Your task to perform on an android device: Google the capital of Mexico Image 0: 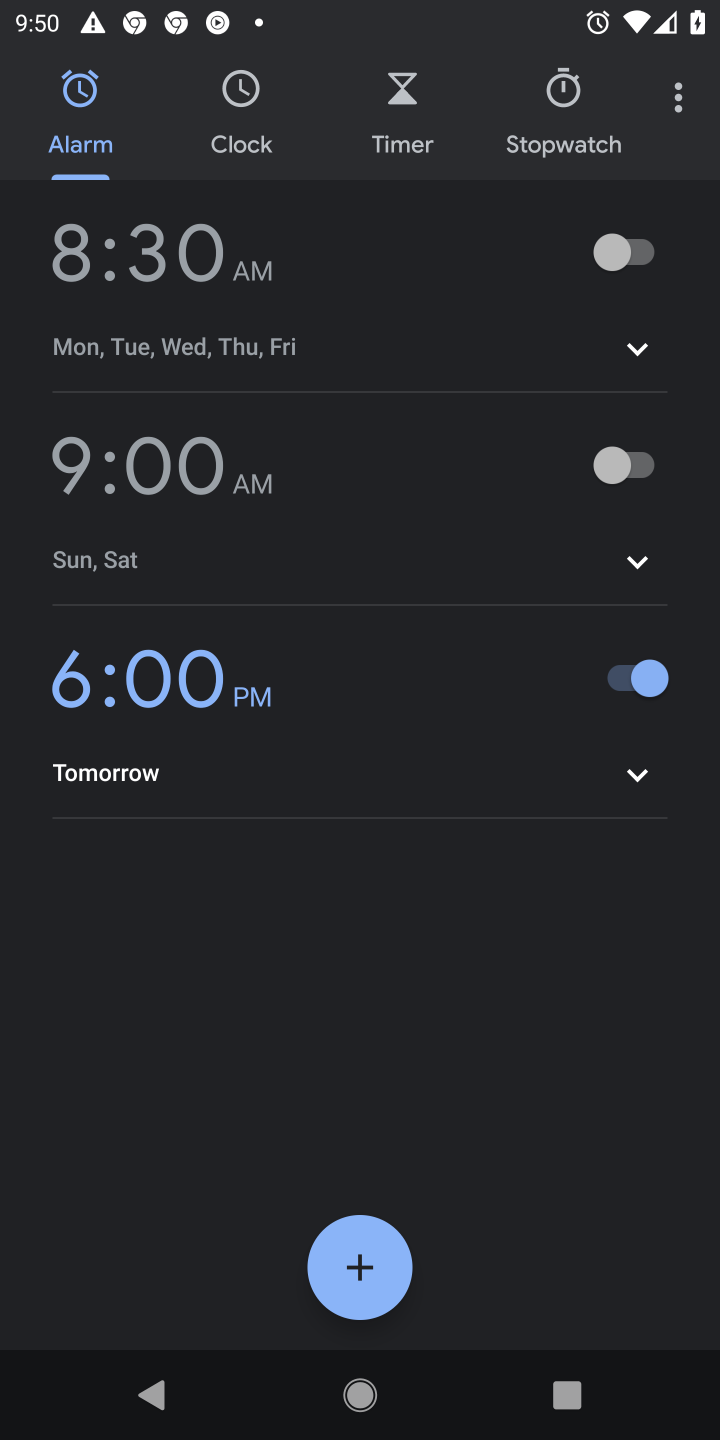
Step 0: press home button
Your task to perform on an android device: Google the capital of Mexico Image 1: 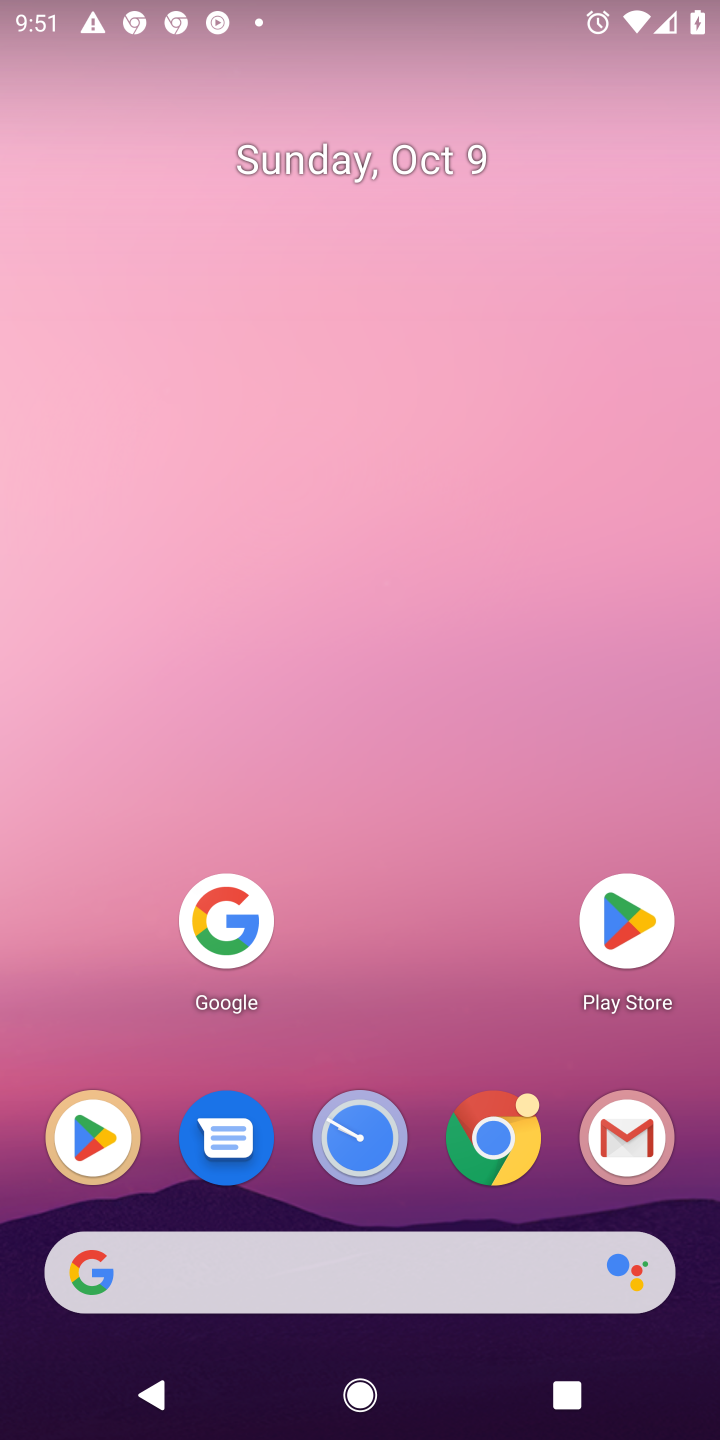
Step 1: click (231, 910)
Your task to perform on an android device: Google the capital of Mexico Image 2: 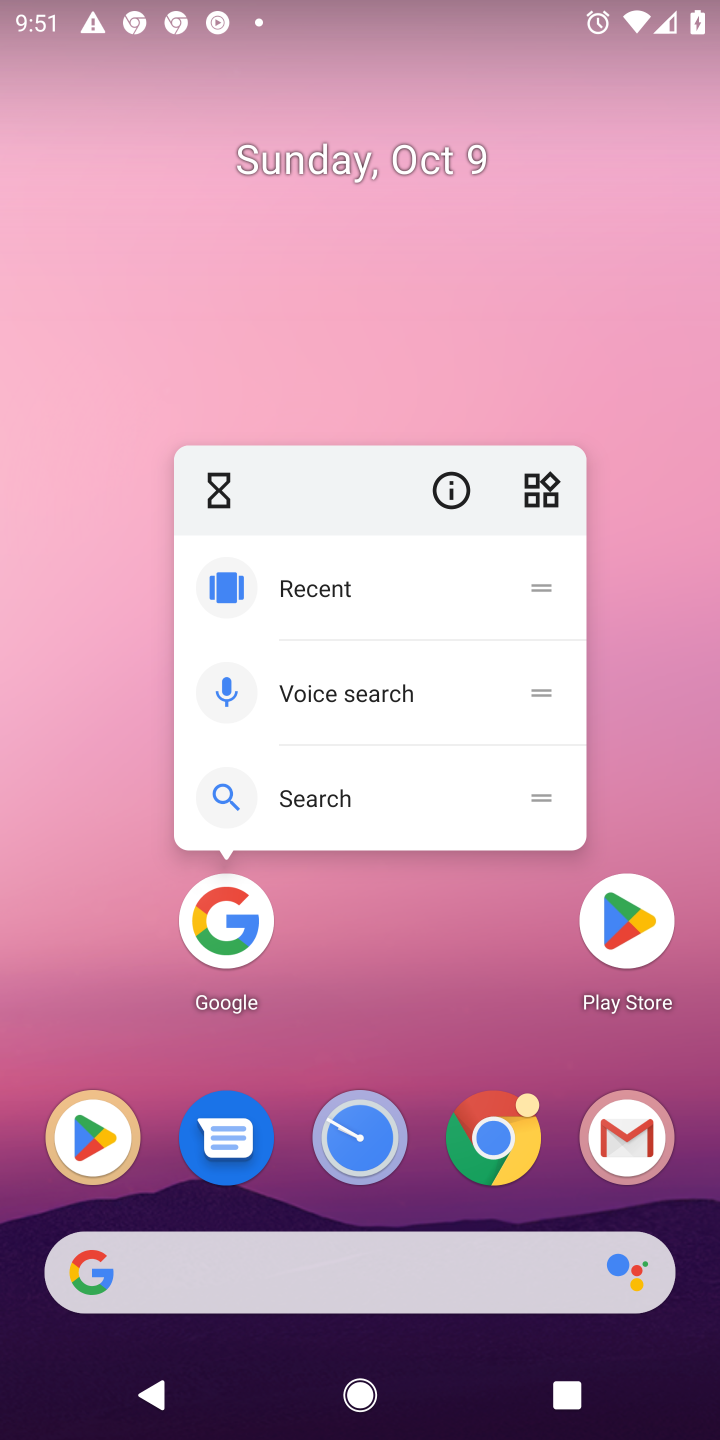
Step 2: click (231, 910)
Your task to perform on an android device: Google the capital of Mexico Image 3: 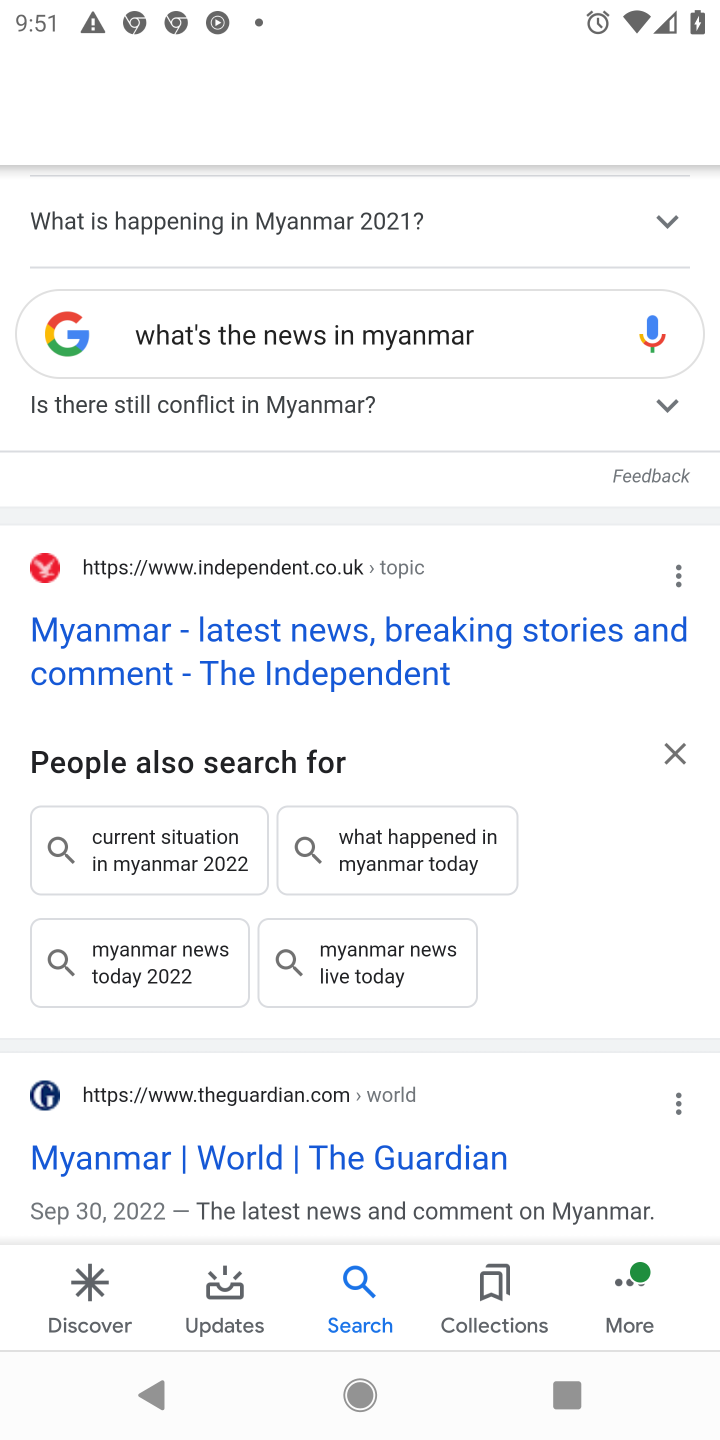
Step 3: click (473, 331)
Your task to perform on an android device: Google the capital of Mexico Image 4: 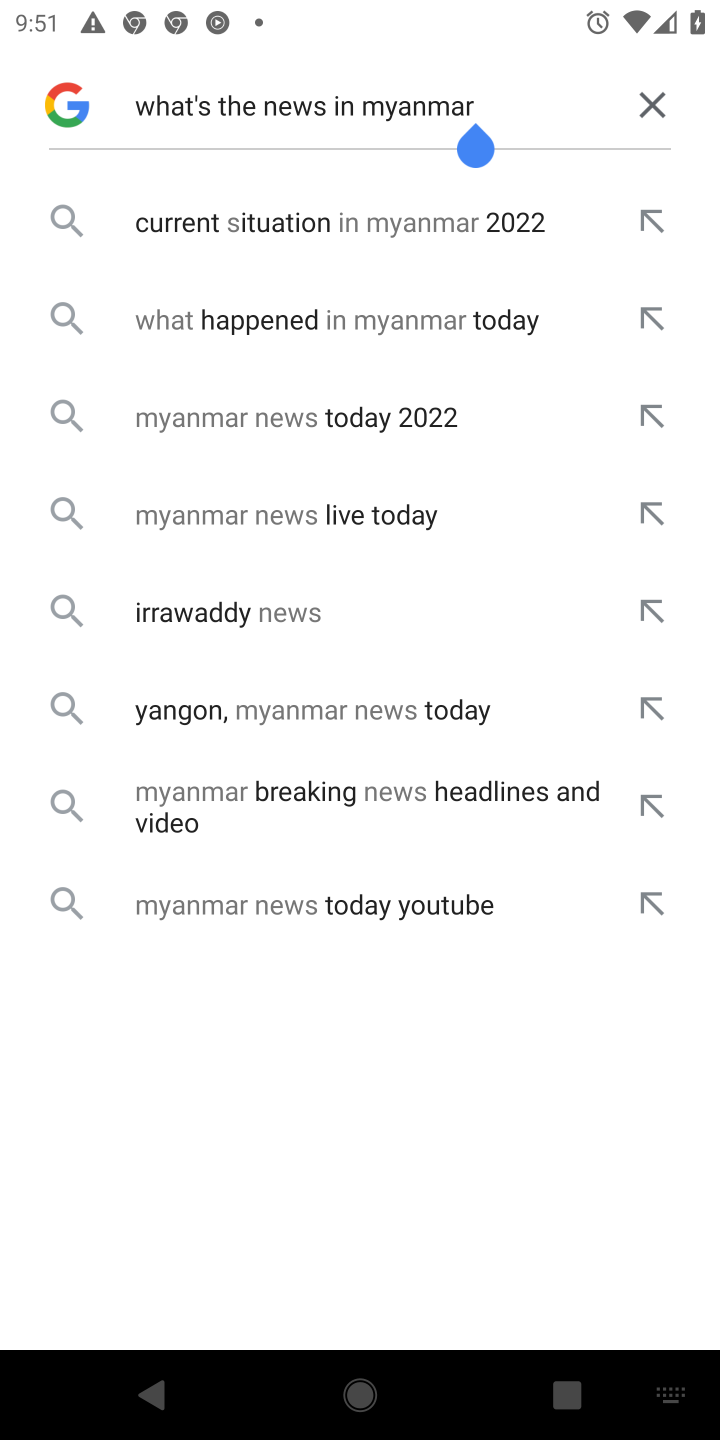
Step 4: click (638, 105)
Your task to perform on an android device: Google the capital of Mexico Image 5: 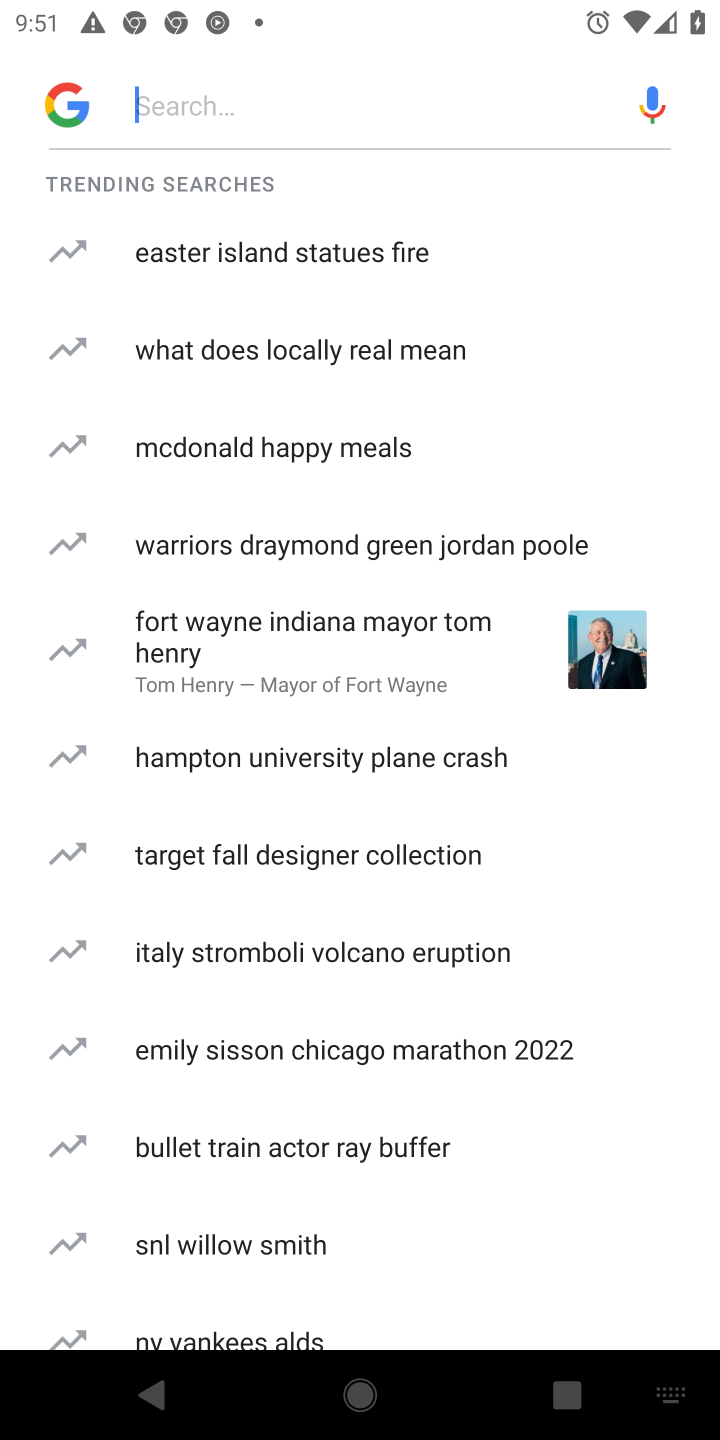
Step 5: click (317, 97)
Your task to perform on an android device: Google the capital of Mexico Image 6: 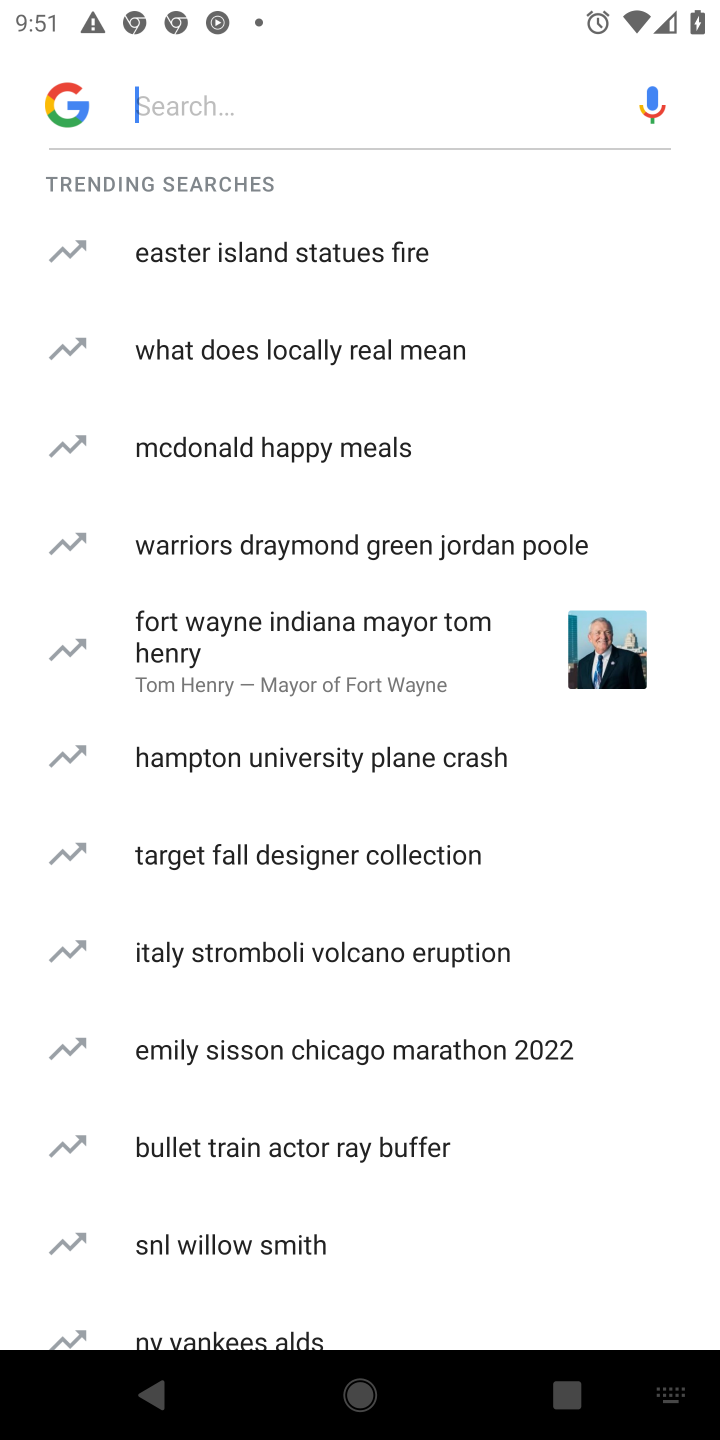
Step 6: type "Google the capital of Mexico "
Your task to perform on an android device: Google the capital of Mexico Image 7: 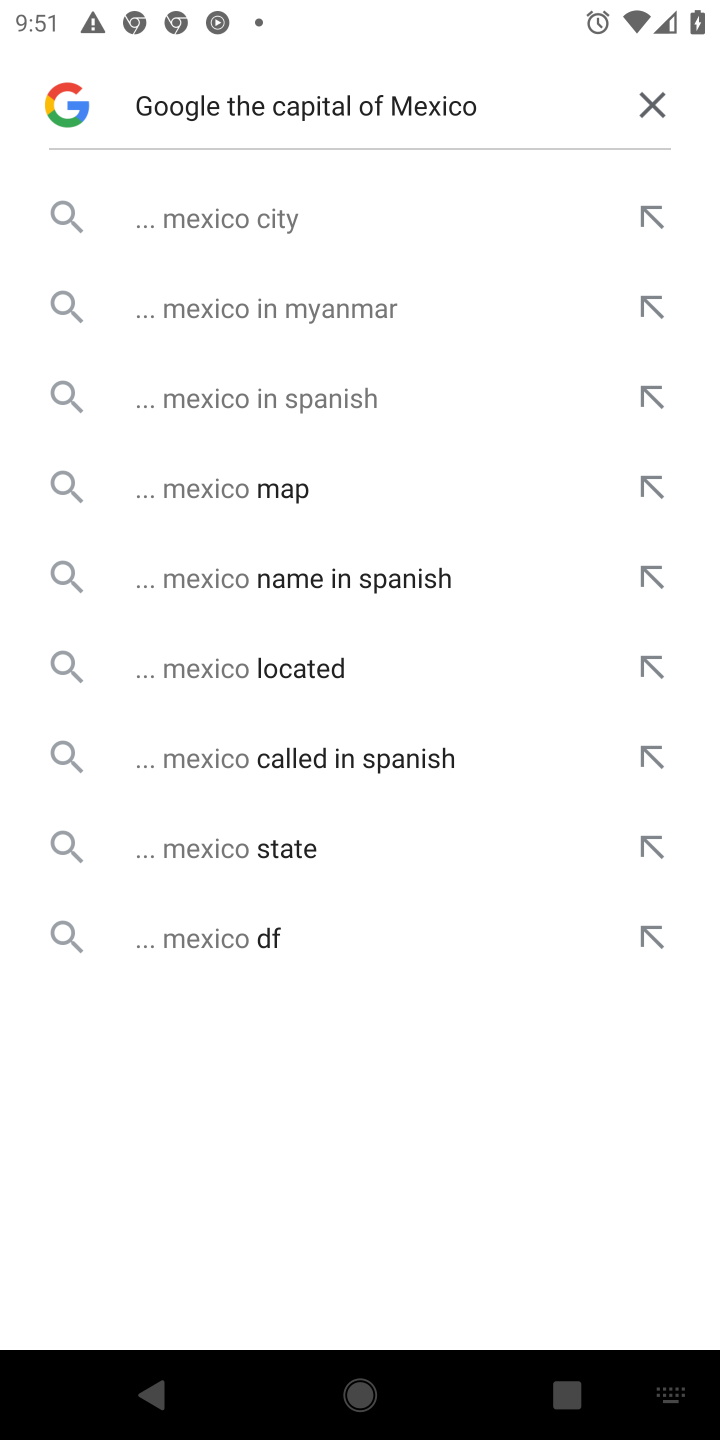
Step 7: click (248, 220)
Your task to perform on an android device: Google the capital of Mexico Image 8: 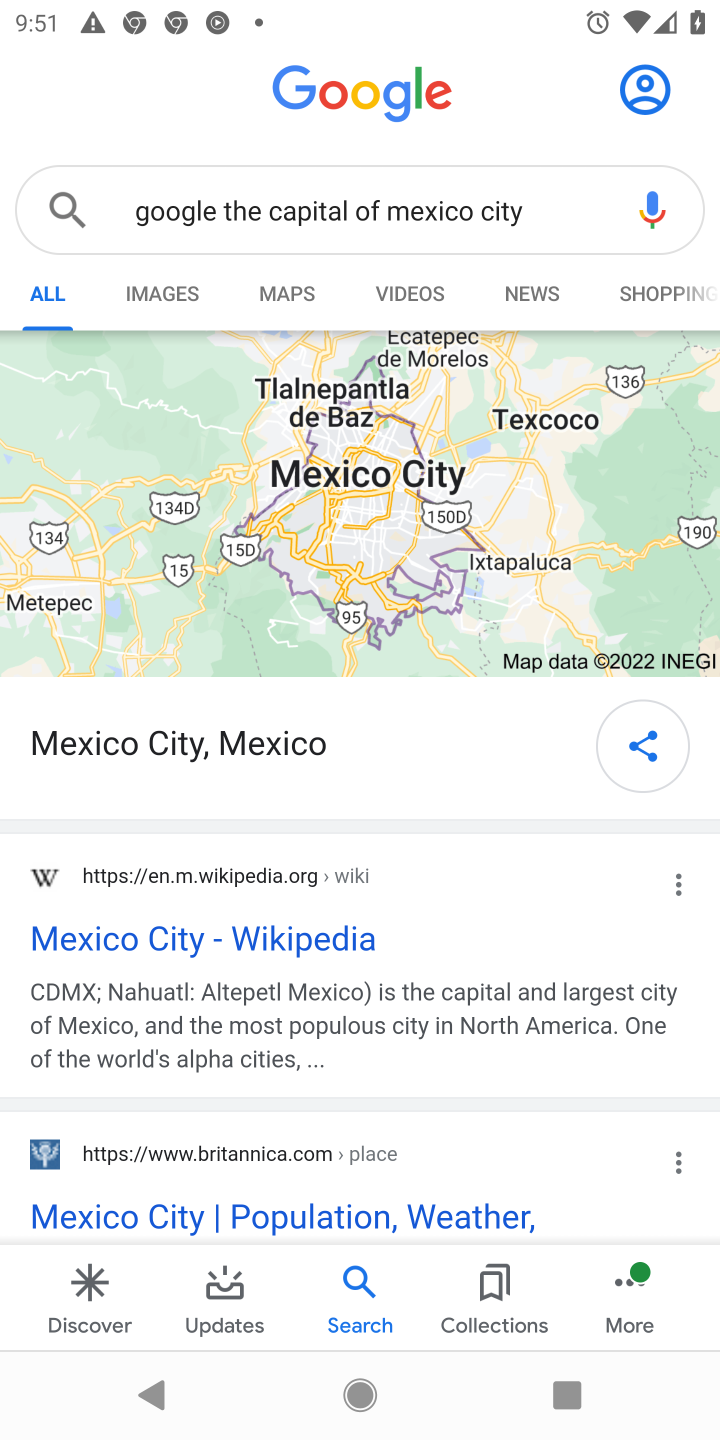
Step 8: drag from (343, 1072) to (347, 680)
Your task to perform on an android device: Google the capital of Mexico Image 9: 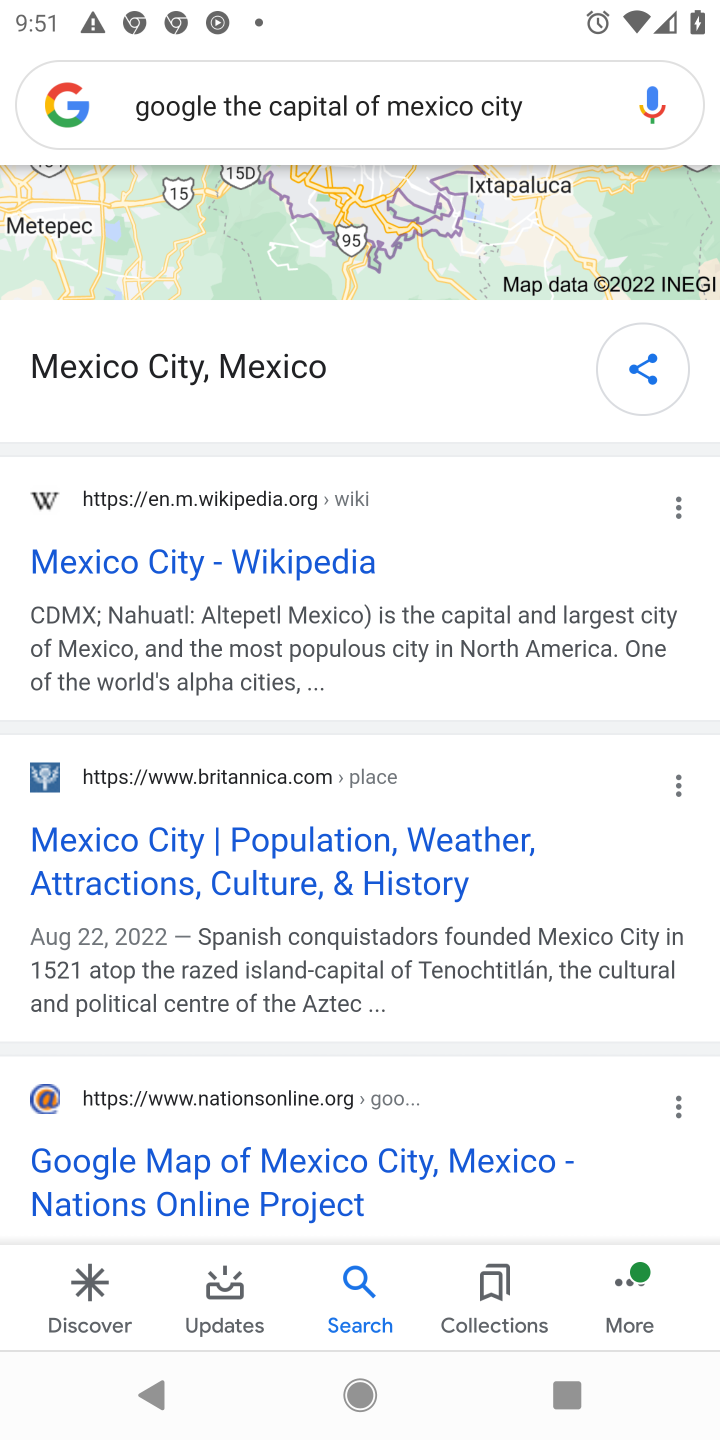
Step 9: click (211, 557)
Your task to perform on an android device: Google the capital of Mexico Image 10: 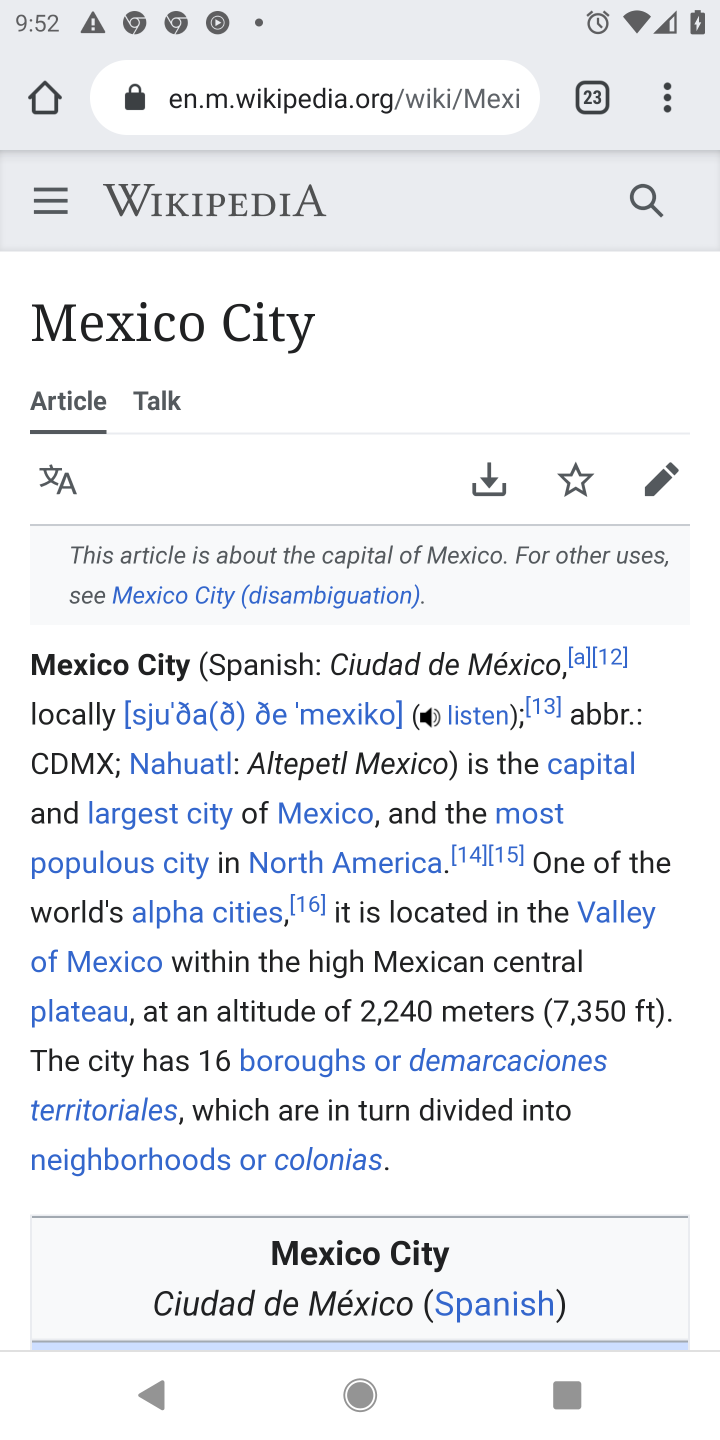
Step 10: task complete